Your task to perform on an android device: turn pop-ups off in chrome Image 0: 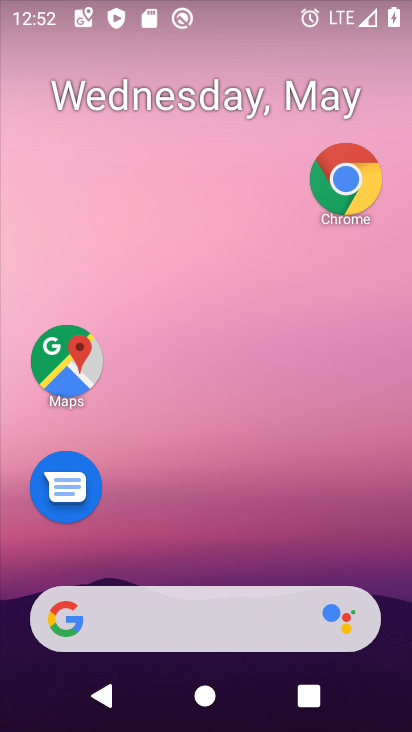
Step 0: drag from (202, 468) to (179, 34)
Your task to perform on an android device: turn pop-ups off in chrome Image 1: 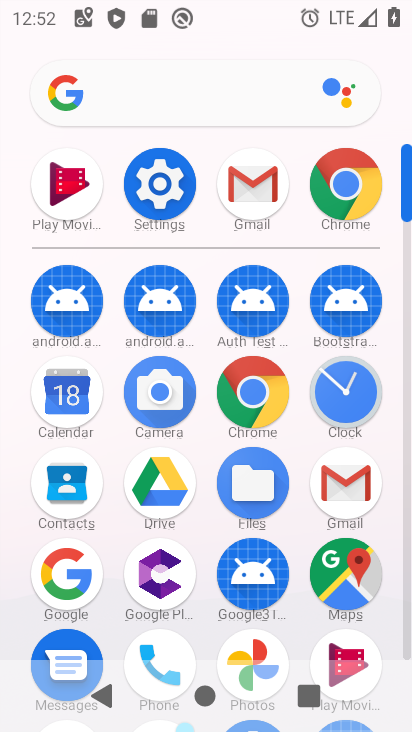
Step 1: click (349, 192)
Your task to perform on an android device: turn pop-ups off in chrome Image 2: 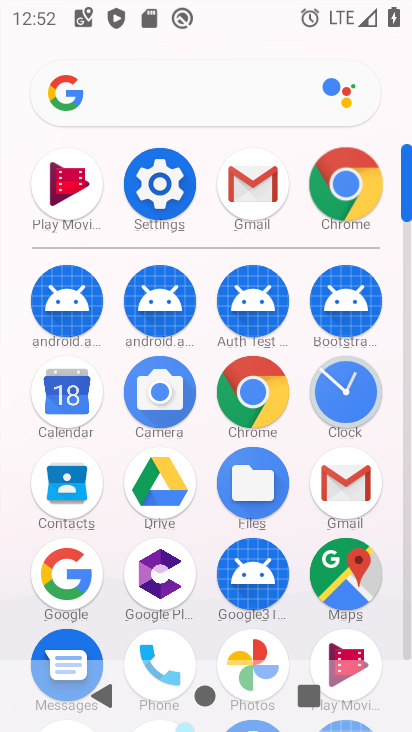
Step 2: click (348, 191)
Your task to perform on an android device: turn pop-ups off in chrome Image 3: 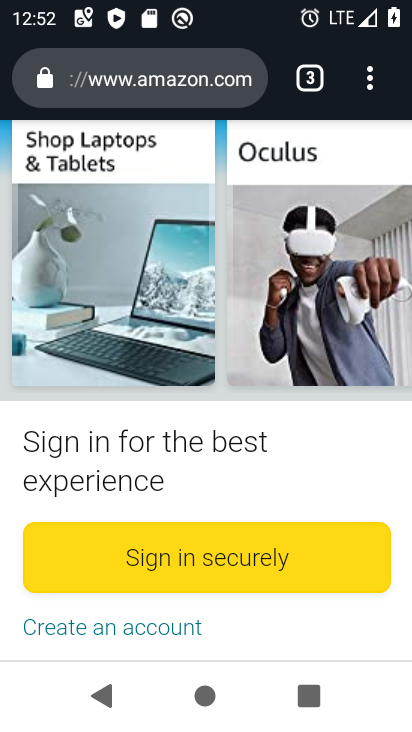
Step 3: click (367, 91)
Your task to perform on an android device: turn pop-ups off in chrome Image 4: 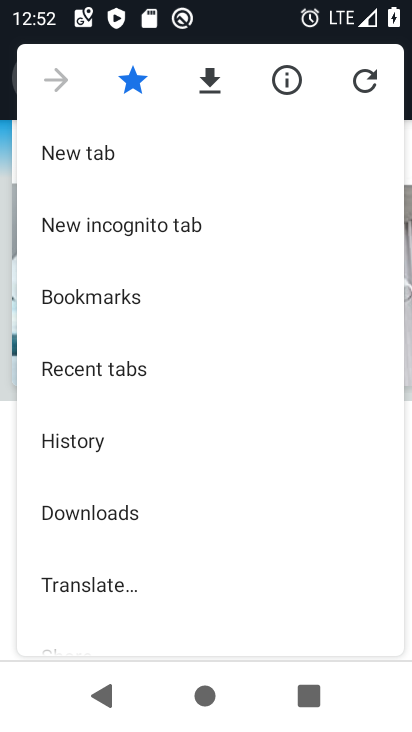
Step 4: drag from (173, 570) to (237, 88)
Your task to perform on an android device: turn pop-ups off in chrome Image 5: 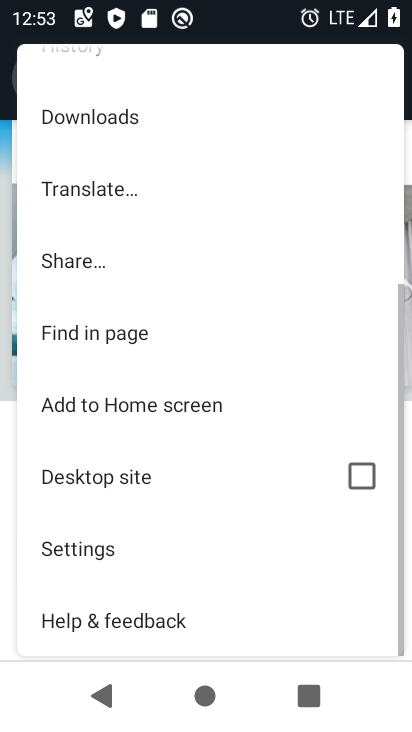
Step 5: click (158, 551)
Your task to perform on an android device: turn pop-ups off in chrome Image 6: 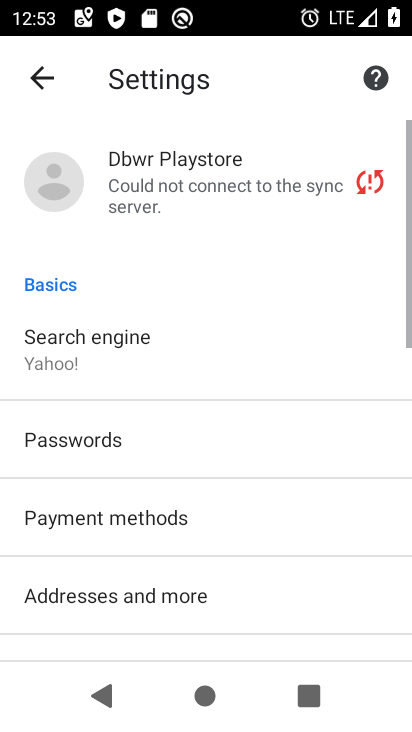
Step 6: drag from (221, 528) to (303, 44)
Your task to perform on an android device: turn pop-ups off in chrome Image 7: 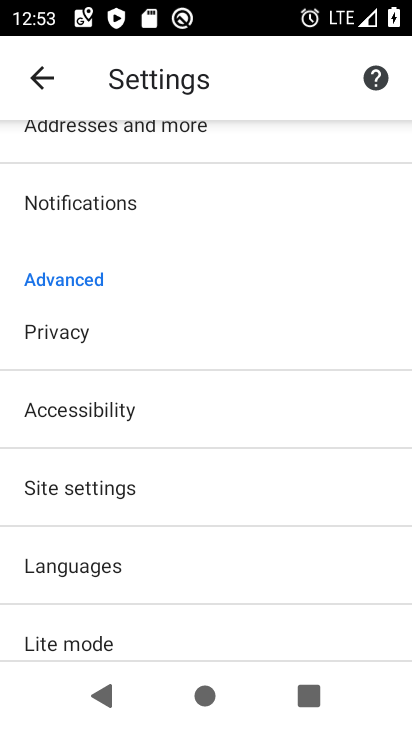
Step 7: click (109, 488)
Your task to perform on an android device: turn pop-ups off in chrome Image 8: 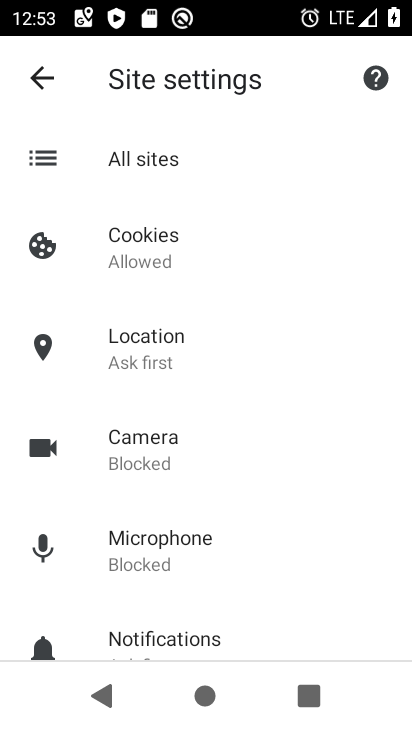
Step 8: drag from (217, 486) to (244, 199)
Your task to perform on an android device: turn pop-ups off in chrome Image 9: 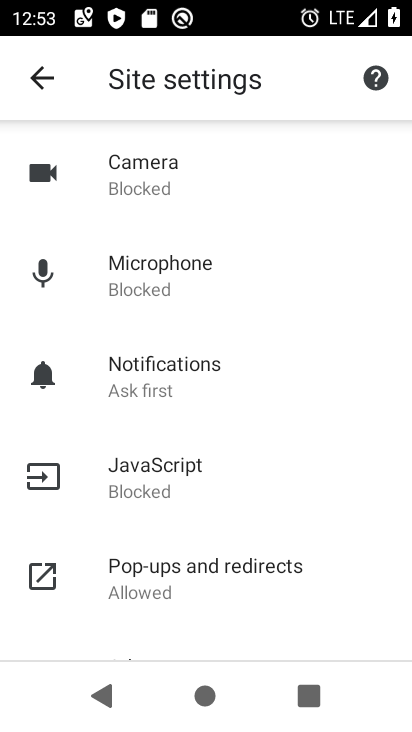
Step 9: click (218, 571)
Your task to perform on an android device: turn pop-ups off in chrome Image 10: 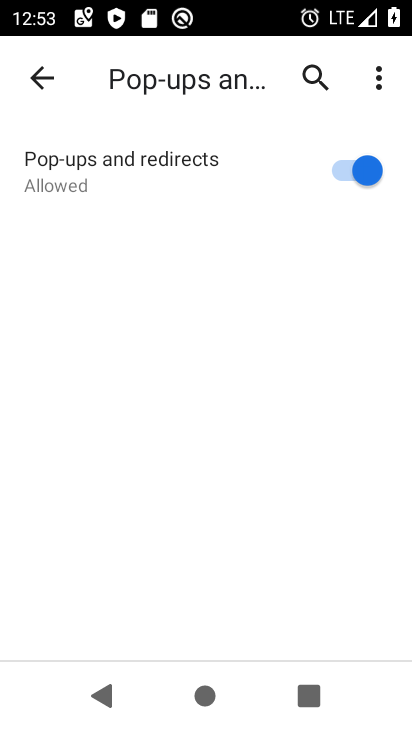
Step 10: click (358, 166)
Your task to perform on an android device: turn pop-ups off in chrome Image 11: 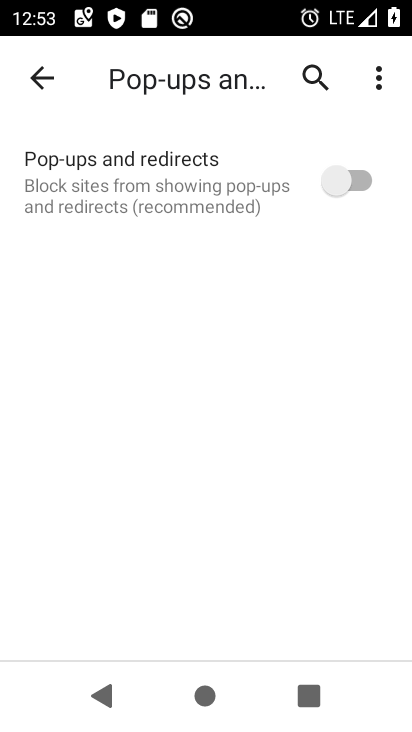
Step 11: task complete